Your task to perform on an android device: Open Amazon Image 0: 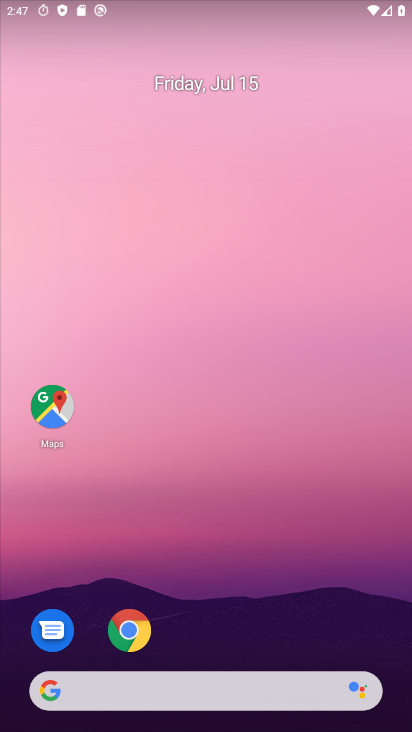
Step 0: click (131, 639)
Your task to perform on an android device: Open Amazon Image 1: 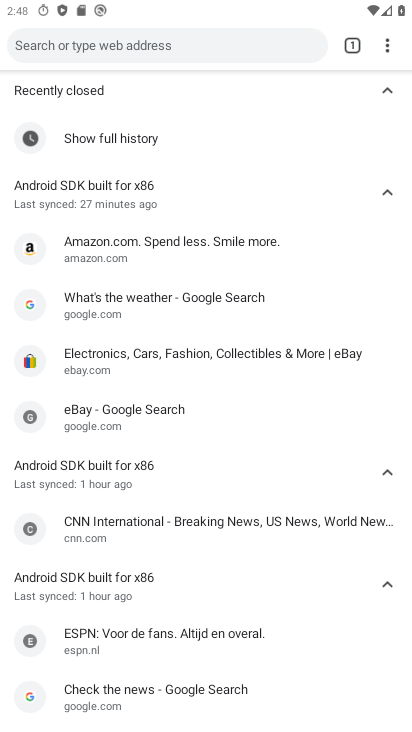
Step 1: click (192, 46)
Your task to perform on an android device: Open Amazon Image 2: 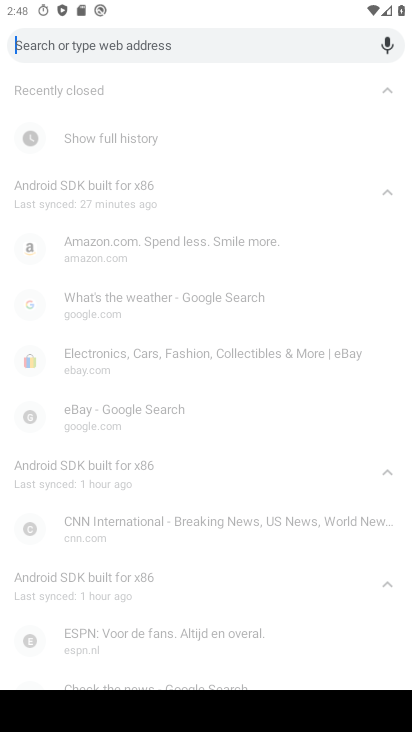
Step 2: type "amazon"
Your task to perform on an android device: Open Amazon Image 3: 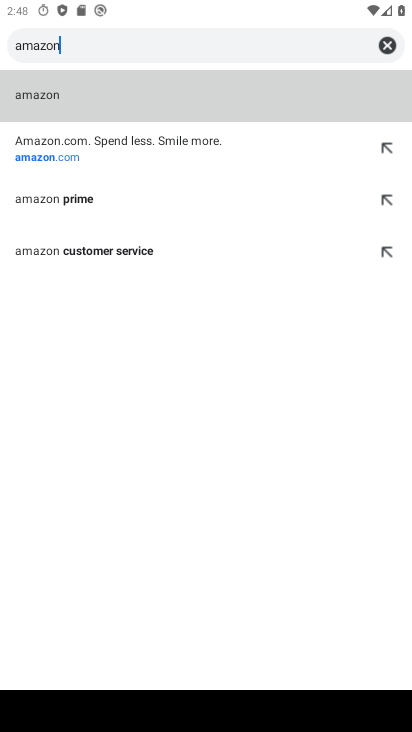
Step 3: click (271, 93)
Your task to perform on an android device: Open Amazon Image 4: 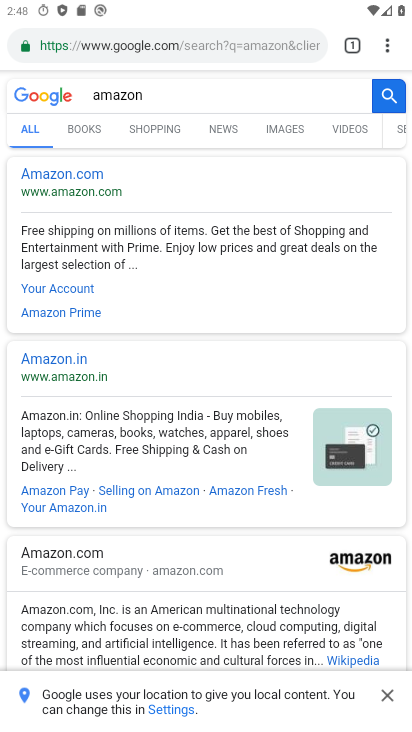
Step 4: click (51, 177)
Your task to perform on an android device: Open Amazon Image 5: 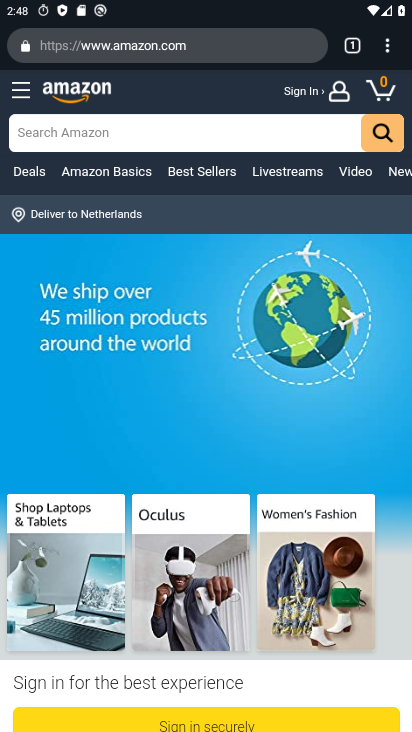
Step 5: task complete